Your task to perform on an android device: uninstall "Spotify: Music and Podcasts" Image 0: 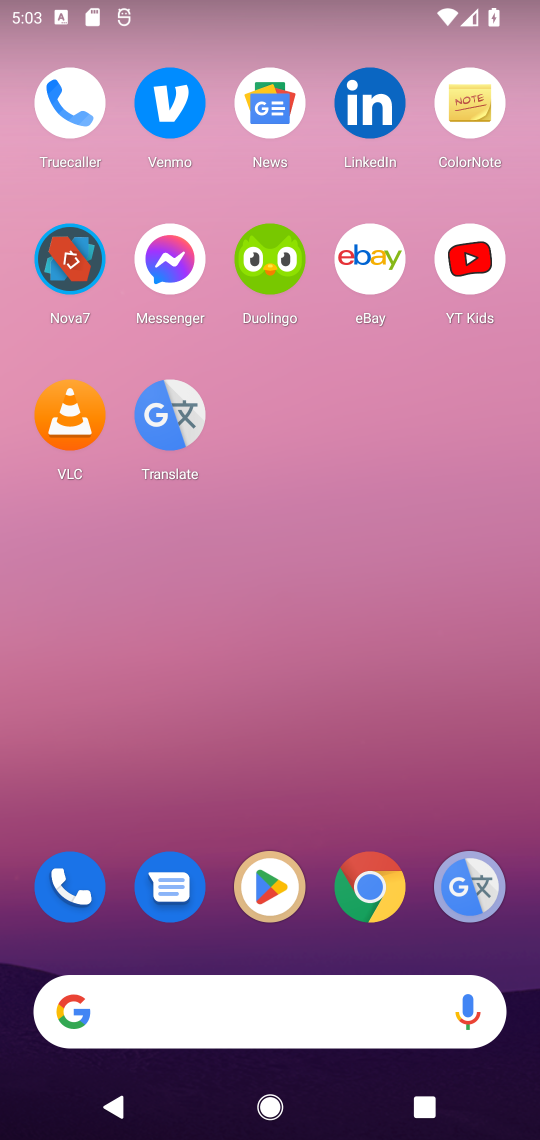
Step 0: press home button
Your task to perform on an android device: uninstall "Spotify: Music and Podcasts" Image 1: 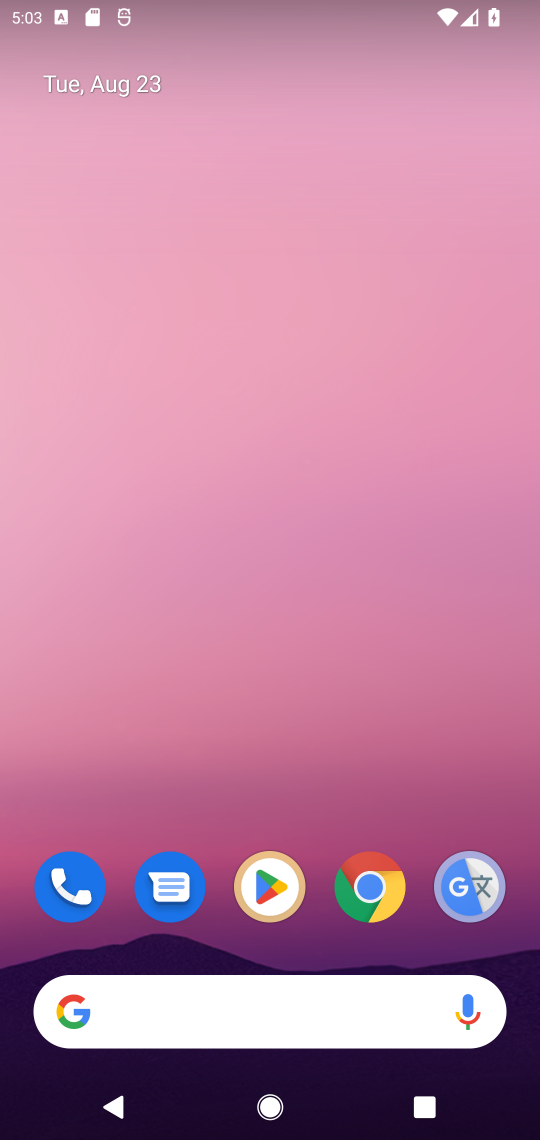
Step 1: click (257, 888)
Your task to perform on an android device: uninstall "Spotify: Music and Podcasts" Image 2: 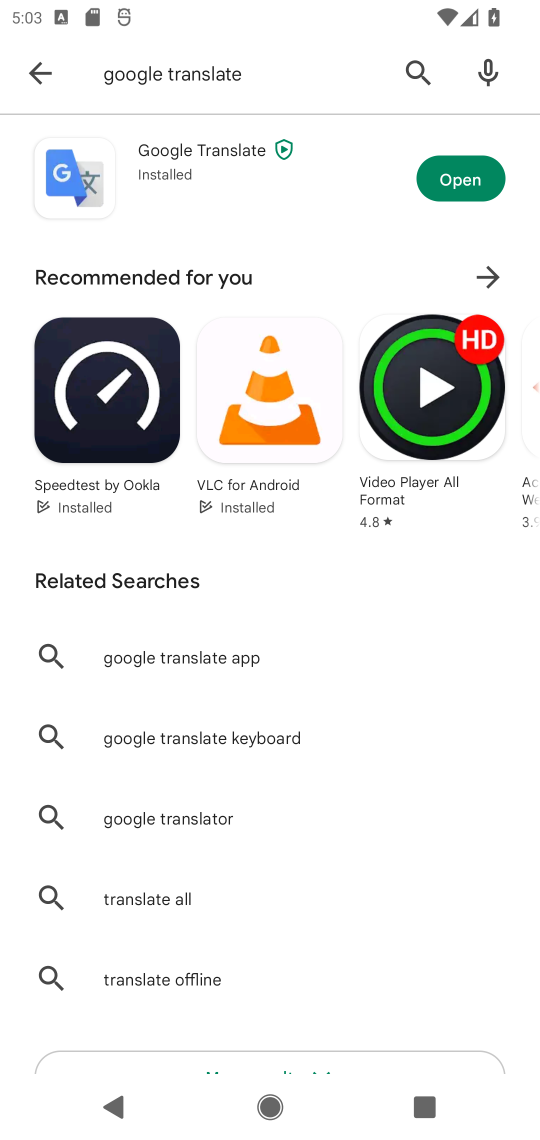
Step 2: click (33, 68)
Your task to perform on an android device: uninstall "Spotify: Music and Podcasts" Image 3: 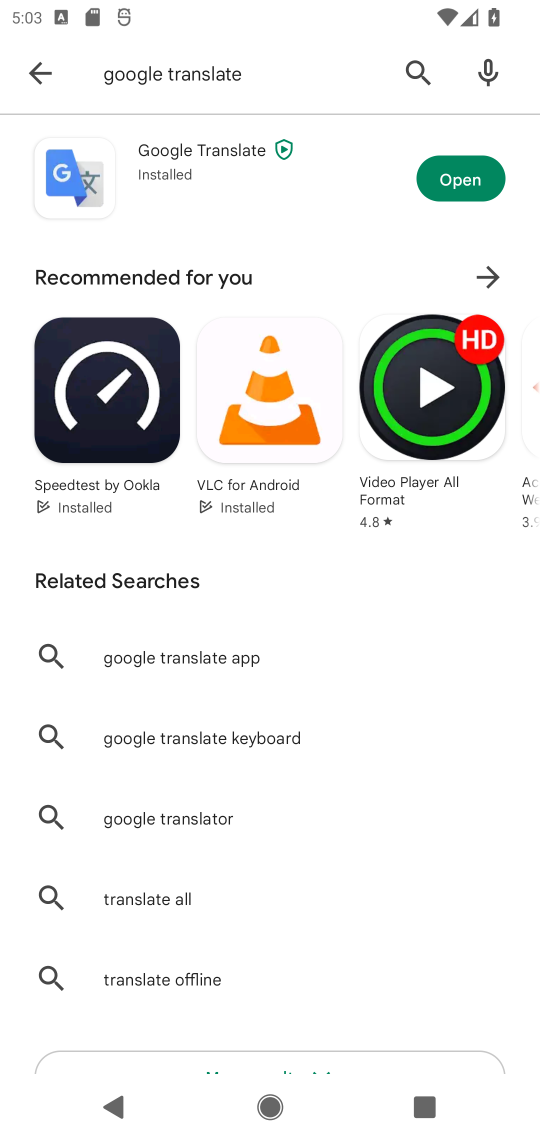
Step 3: click (38, 66)
Your task to perform on an android device: uninstall "Spotify: Music and Podcasts" Image 4: 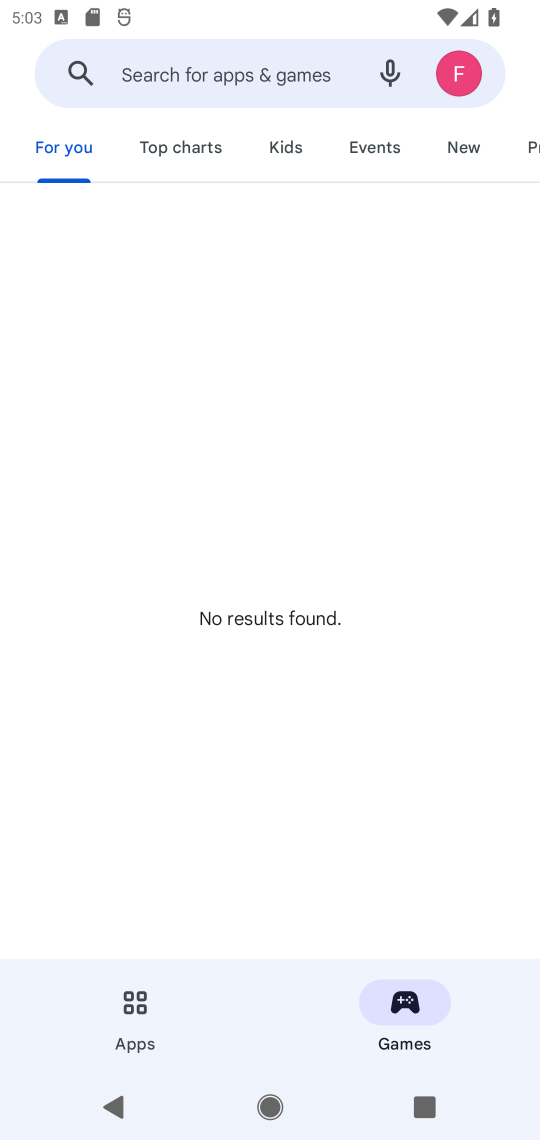
Step 4: click (231, 79)
Your task to perform on an android device: uninstall "Spotify: Music and Podcasts" Image 5: 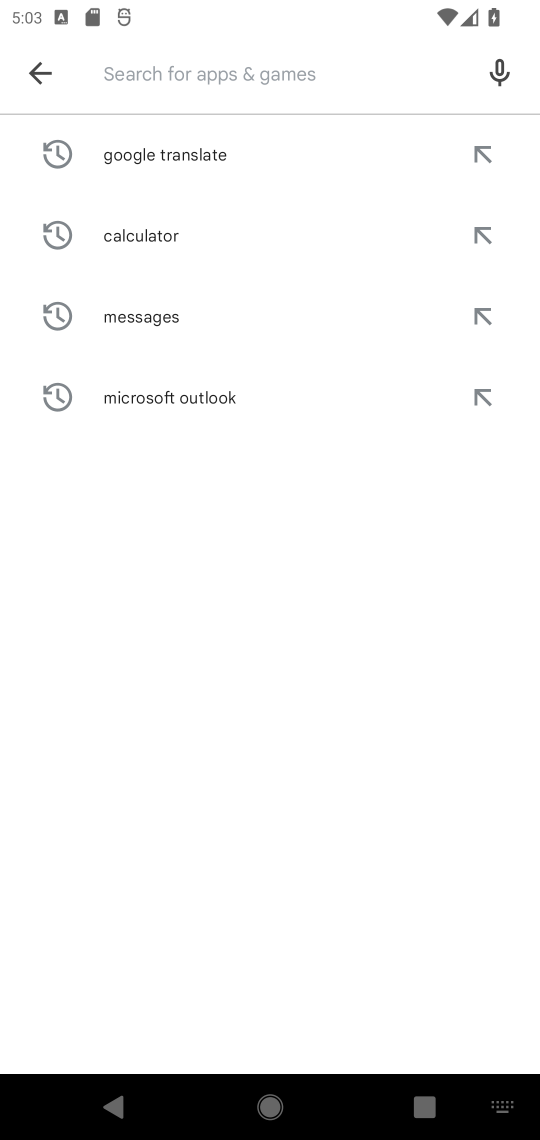
Step 5: type "Spotify"
Your task to perform on an android device: uninstall "Spotify: Music and Podcasts" Image 6: 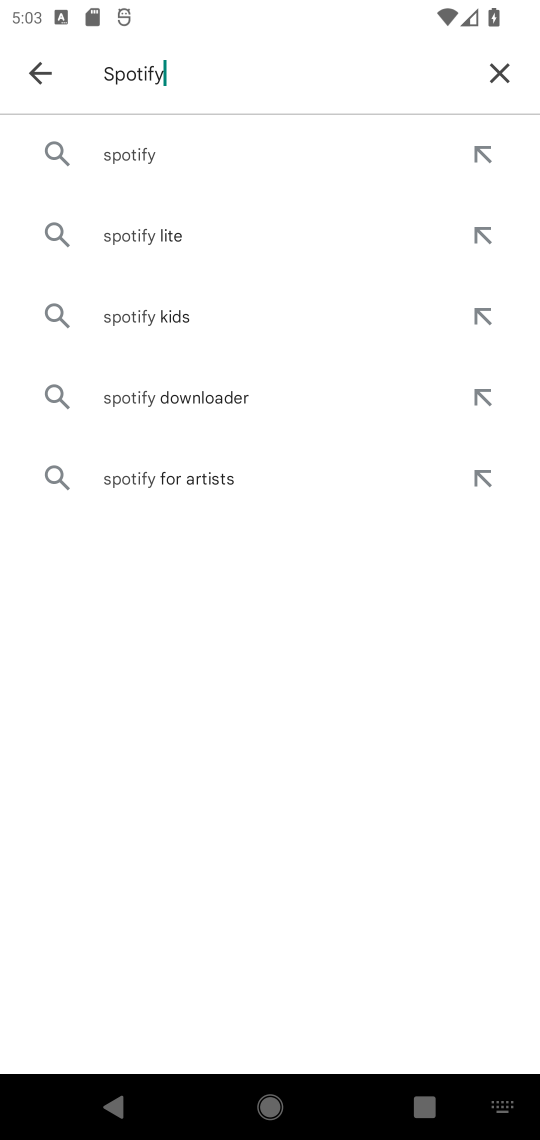
Step 6: click (126, 161)
Your task to perform on an android device: uninstall "Spotify: Music and Podcasts" Image 7: 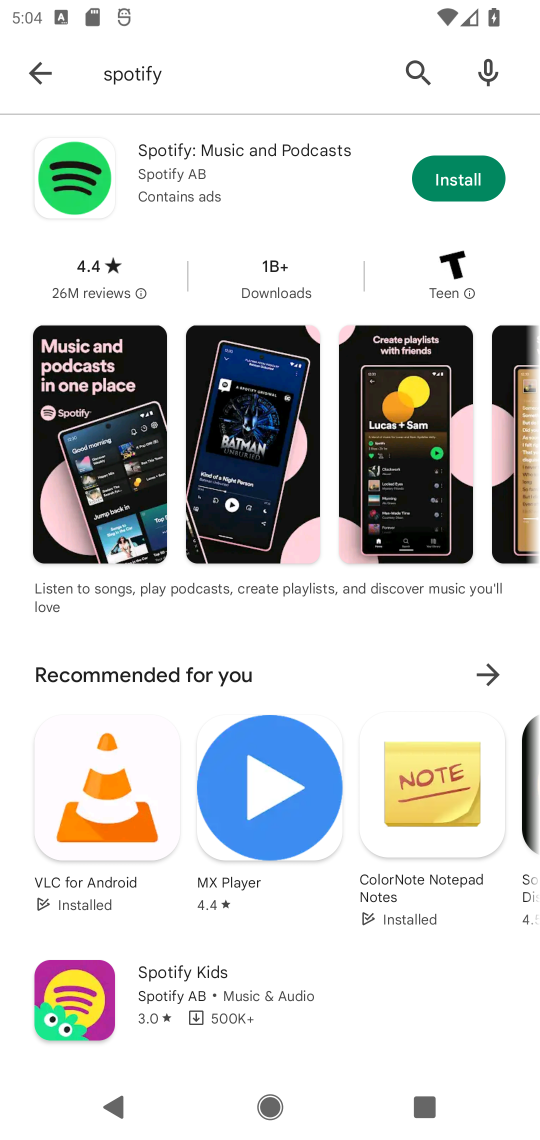
Step 7: click (449, 182)
Your task to perform on an android device: uninstall "Spotify: Music and Podcasts" Image 8: 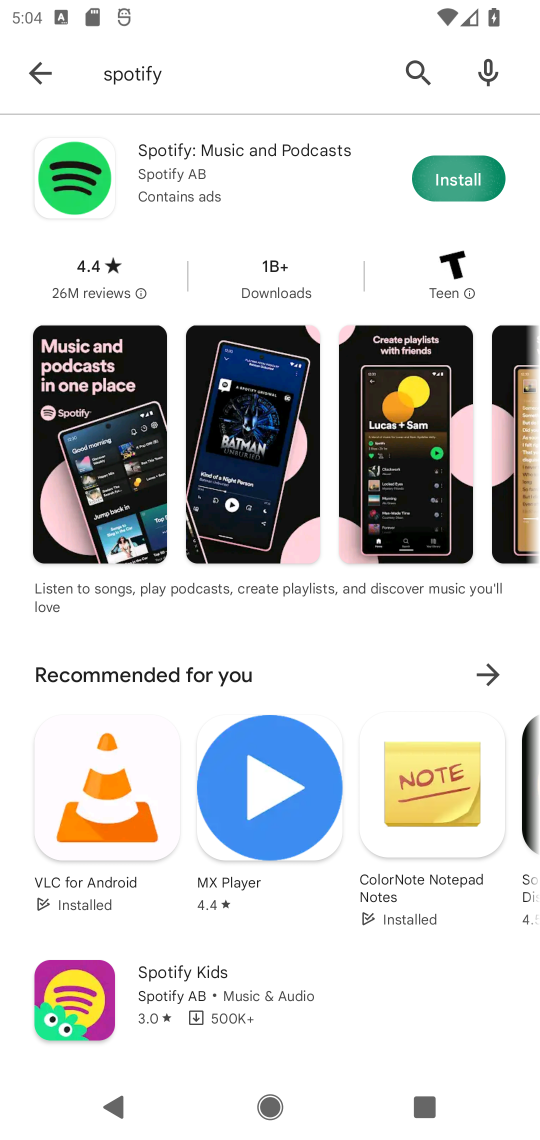
Step 8: task complete